Your task to perform on an android device: turn off airplane mode Image 0: 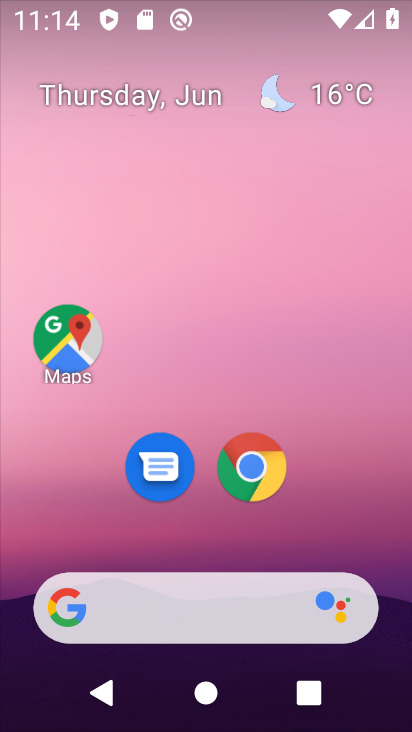
Step 0: drag from (398, 545) to (330, 79)
Your task to perform on an android device: turn off airplane mode Image 1: 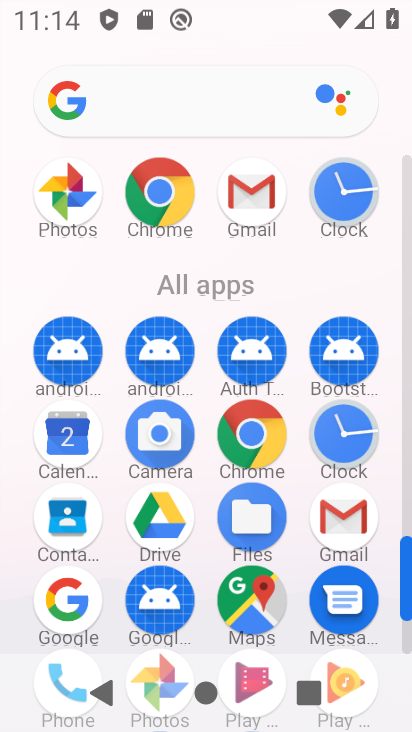
Step 1: click (404, 638)
Your task to perform on an android device: turn off airplane mode Image 2: 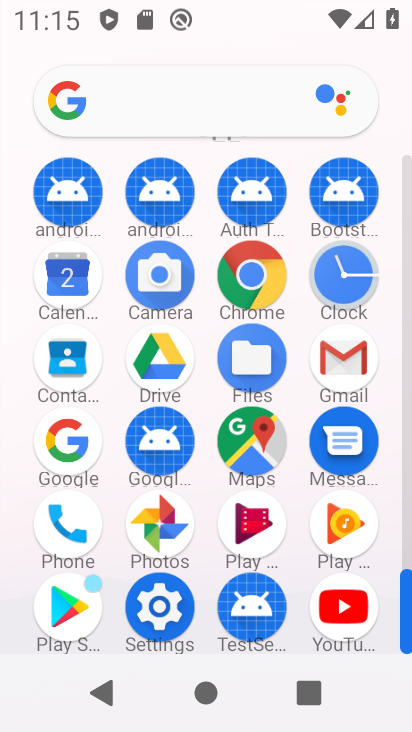
Step 2: click (159, 607)
Your task to perform on an android device: turn off airplane mode Image 3: 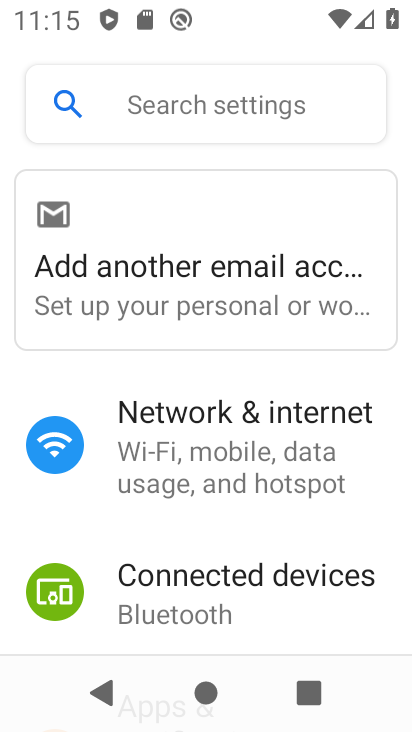
Step 3: click (197, 466)
Your task to perform on an android device: turn off airplane mode Image 4: 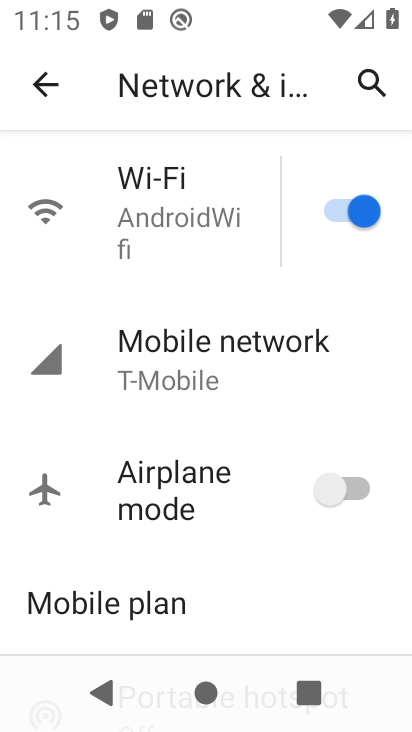
Step 4: task complete